Your task to perform on an android device: turn off sleep mode Image 0: 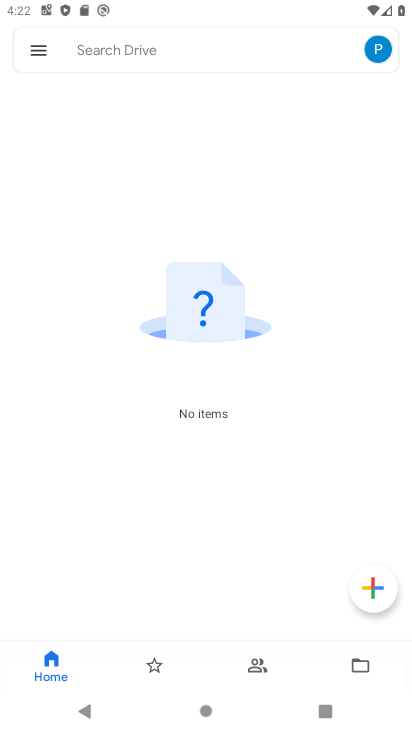
Step 0: press home button
Your task to perform on an android device: turn off sleep mode Image 1: 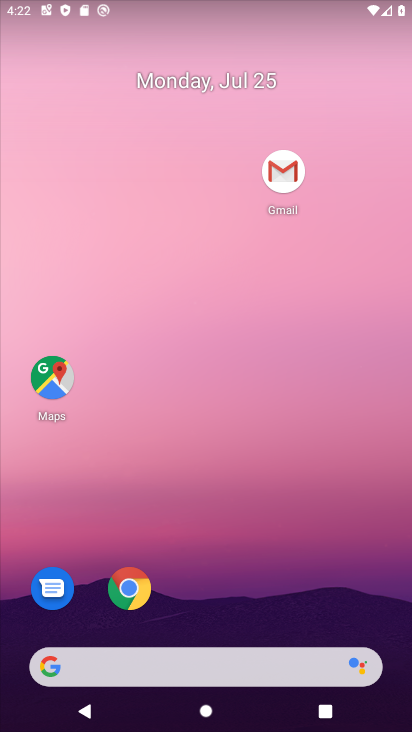
Step 1: drag from (263, 320) to (253, 2)
Your task to perform on an android device: turn off sleep mode Image 2: 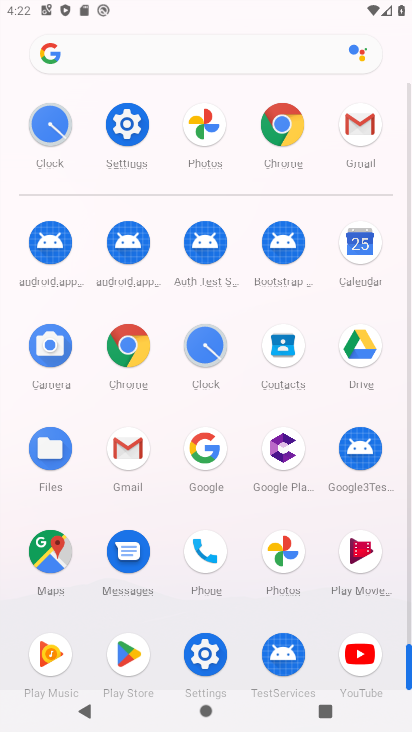
Step 2: click (114, 126)
Your task to perform on an android device: turn off sleep mode Image 3: 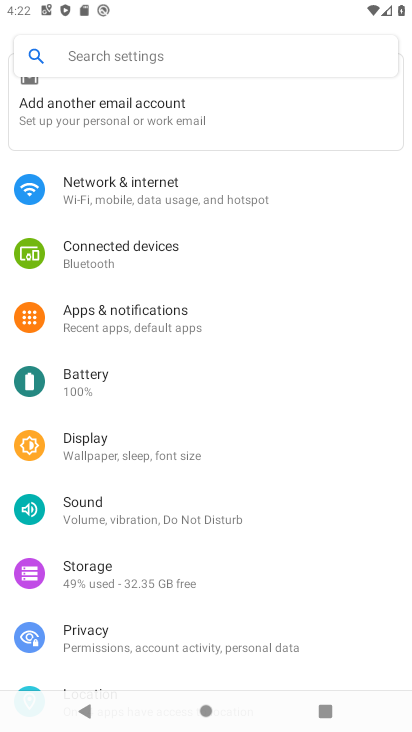
Step 3: click (140, 467)
Your task to perform on an android device: turn off sleep mode Image 4: 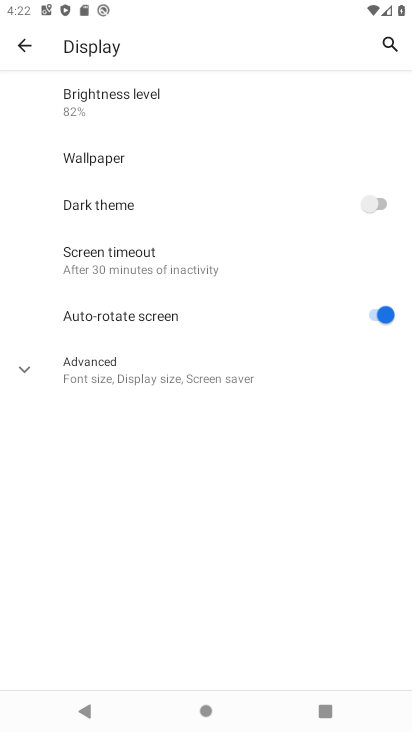
Step 4: click (215, 275)
Your task to perform on an android device: turn off sleep mode Image 5: 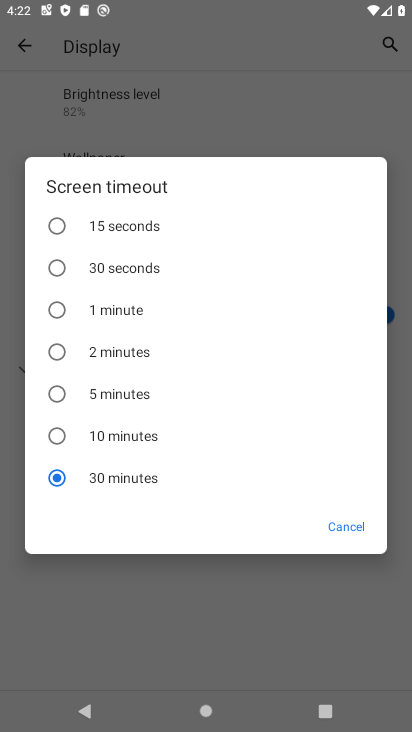
Step 5: task complete